Your task to perform on an android device: What's on my calendar today? Image 0: 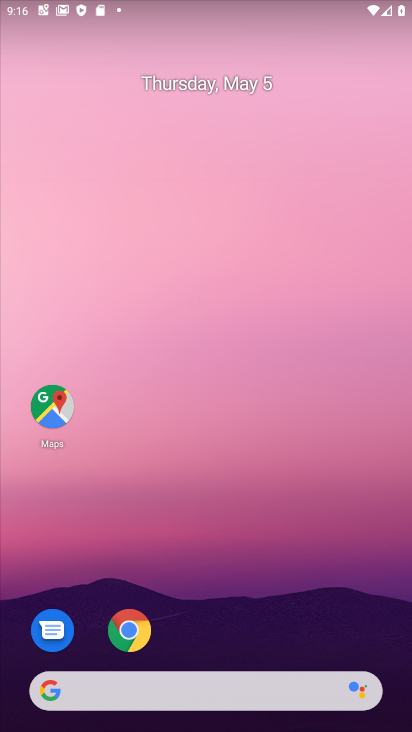
Step 0: drag from (192, 609) to (67, 151)
Your task to perform on an android device: What's on my calendar today? Image 1: 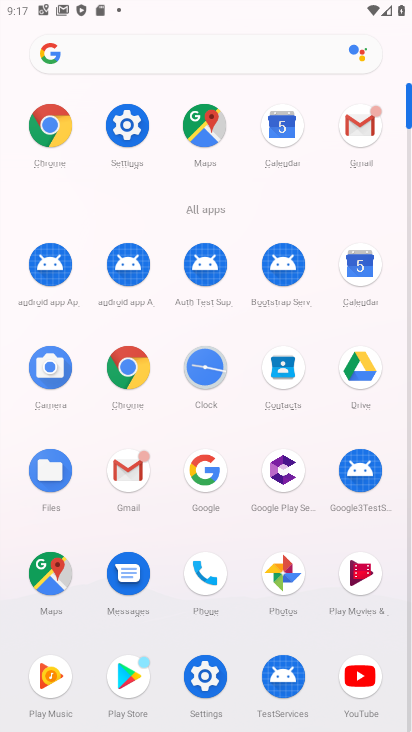
Step 1: click (292, 135)
Your task to perform on an android device: What's on my calendar today? Image 2: 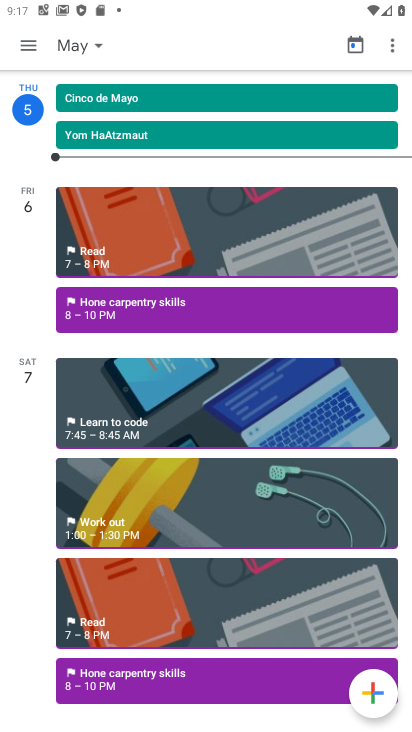
Step 2: task complete